Your task to perform on an android device: toggle pop-ups in chrome Image 0: 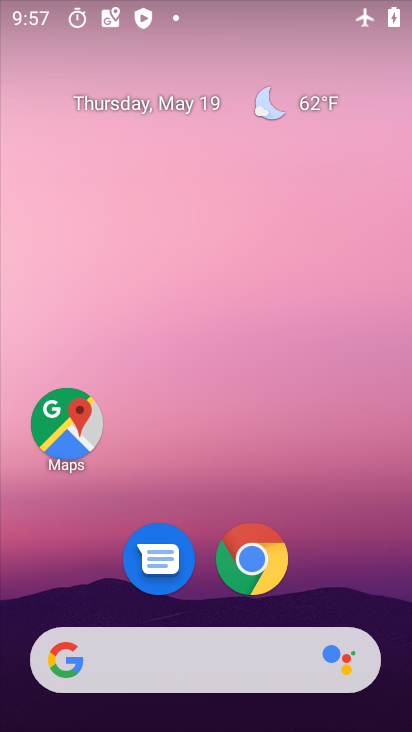
Step 0: click (268, 550)
Your task to perform on an android device: toggle pop-ups in chrome Image 1: 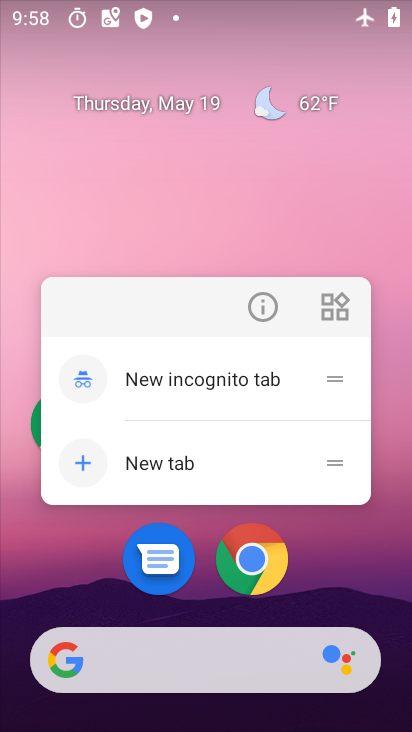
Step 1: click (268, 550)
Your task to perform on an android device: toggle pop-ups in chrome Image 2: 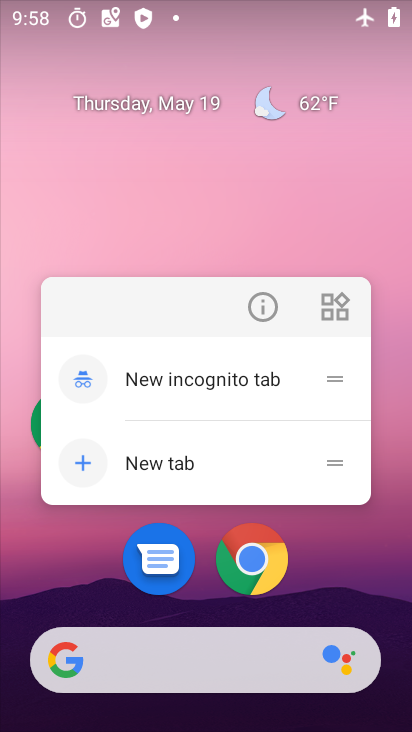
Step 2: click (248, 566)
Your task to perform on an android device: toggle pop-ups in chrome Image 3: 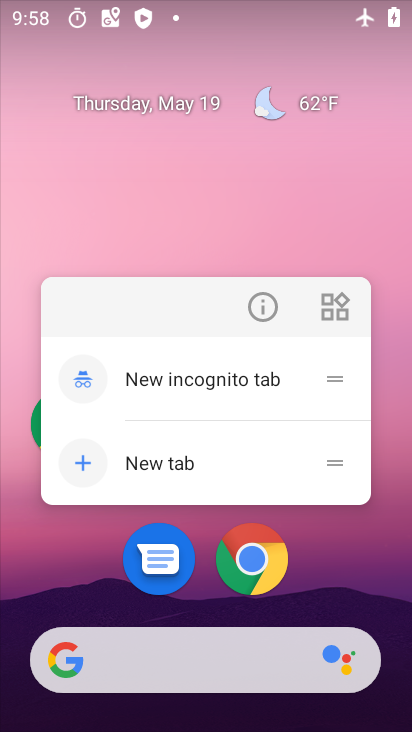
Step 3: click (328, 586)
Your task to perform on an android device: toggle pop-ups in chrome Image 4: 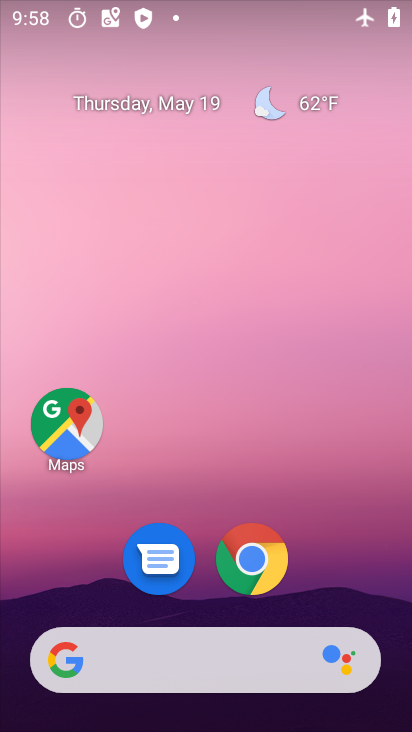
Step 4: drag from (324, 571) to (298, 146)
Your task to perform on an android device: toggle pop-ups in chrome Image 5: 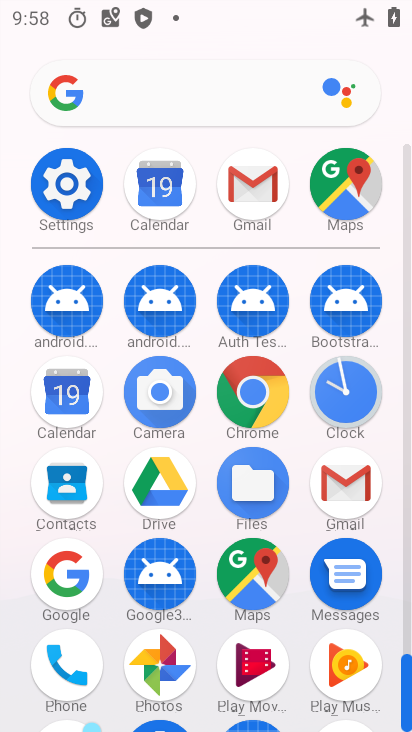
Step 5: click (258, 393)
Your task to perform on an android device: toggle pop-ups in chrome Image 6: 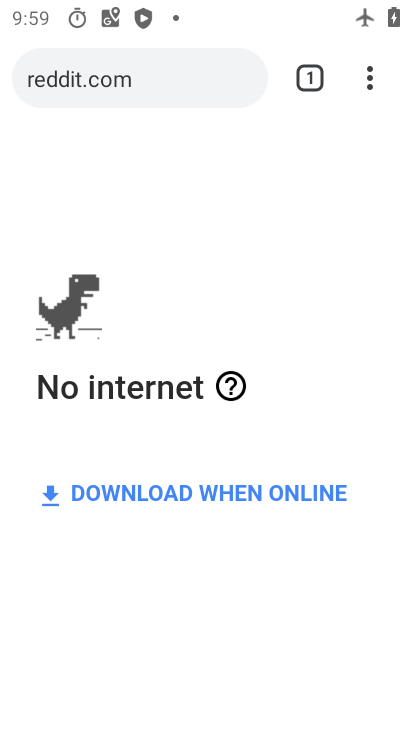
Step 6: click (369, 70)
Your task to perform on an android device: toggle pop-ups in chrome Image 7: 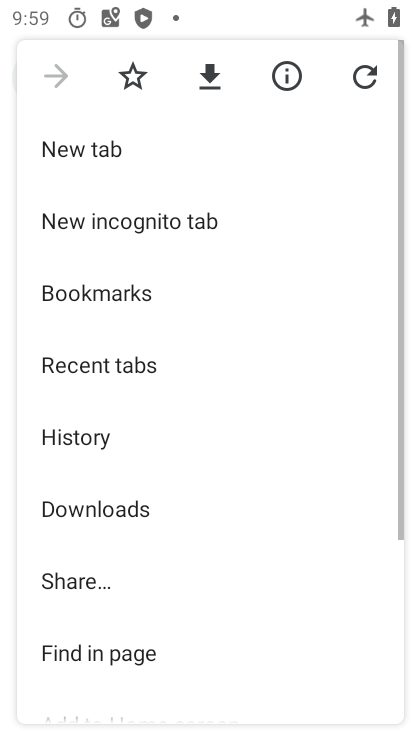
Step 7: drag from (207, 506) to (274, 55)
Your task to perform on an android device: toggle pop-ups in chrome Image 8: 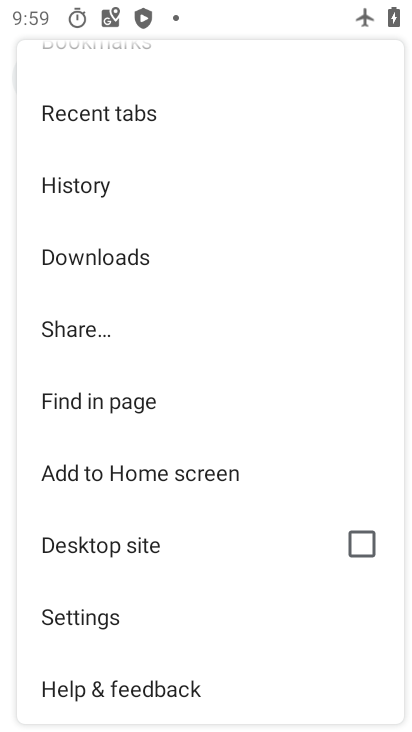
Step 8: click (112, 613)
Your task to perform on an android device: toggle pop-ups in chrome Image 9: 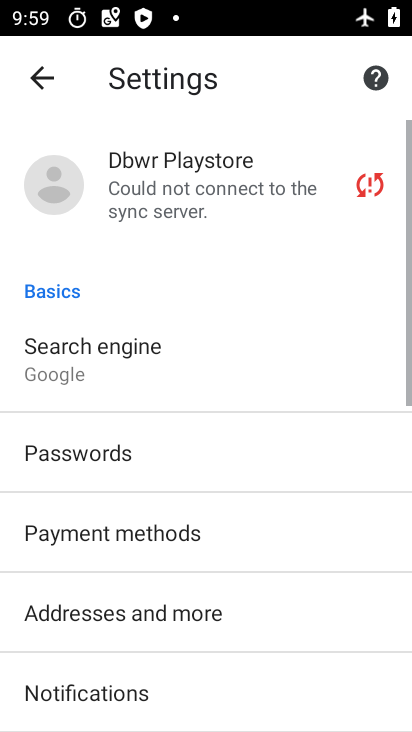
Step 9: drag from (139, 568) to (200, 227)
Your task to perform on an android device: toggle pop-ups in chrome Image 10: 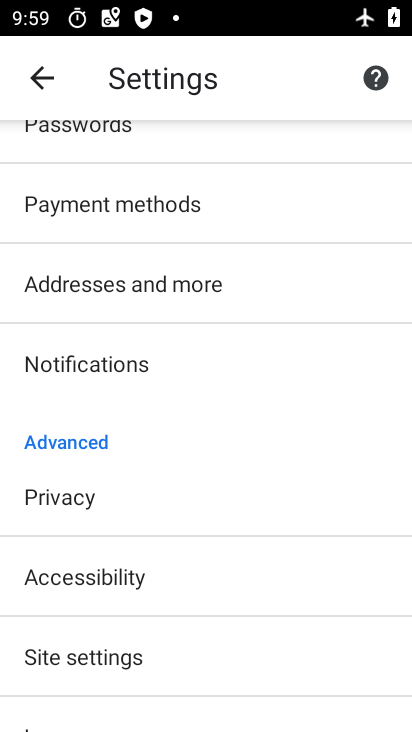
Step 10: drag from (116, 581) to (167, 305)
Your task to perform on an android device: toggle pop-ups in chrome Image 11: 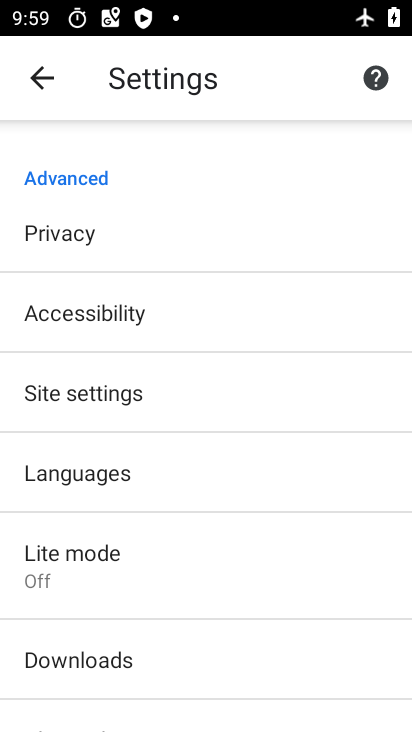
Step 11: click (107, 397)
Your task to perform on an android device: toggle pop-ups in chrome Image 12: 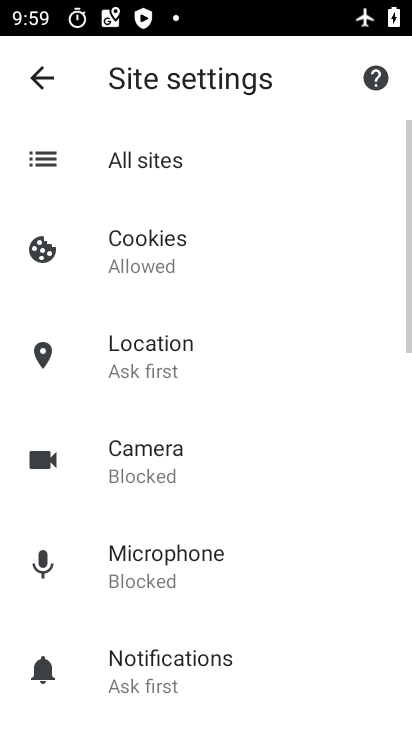
Step 12: drag from (224, 600) to (228, 179)
Your task to perform on an android device: toggle pop-ups in chrome Image 13: 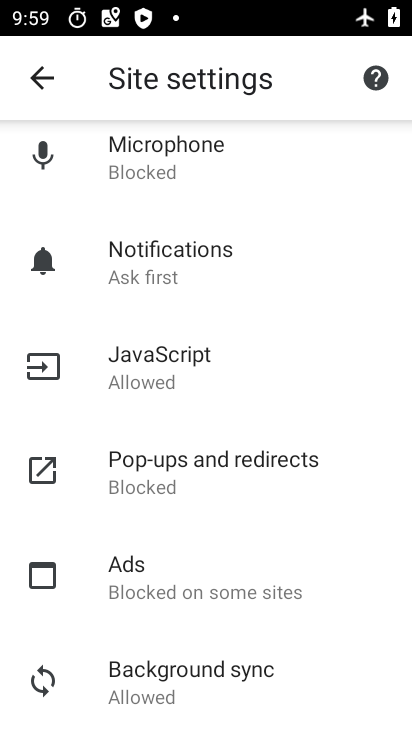
Step 13: click (165, 495)
Your task to perform on an android device: toggle pop-ups in chrome Image 14: 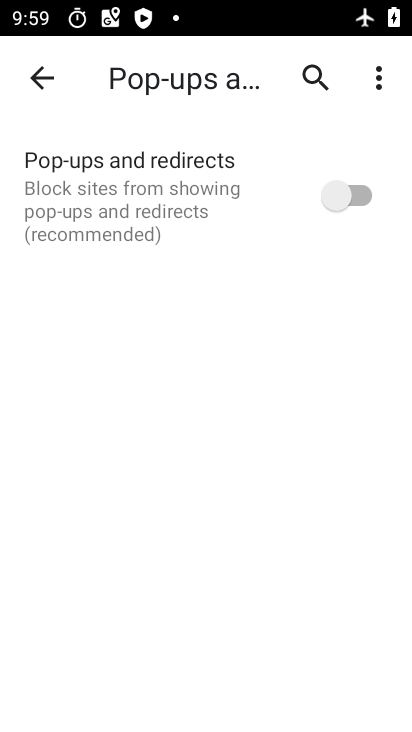
Step 14: click (325, 204)
Your task to perform on an android device: toggle pop-ups in chrome Image 15: 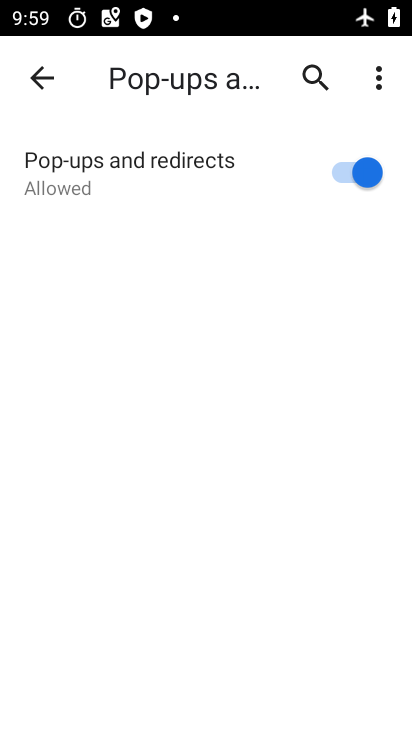
Step 15: task complete